Your task to perform on an android device: What is the news today? Image 0: 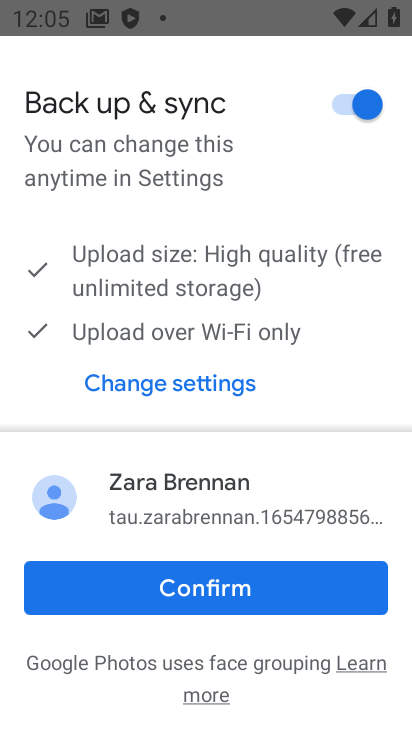
Step 0: press home button
Your task to perform on an android device: What is the news today? Image 1: 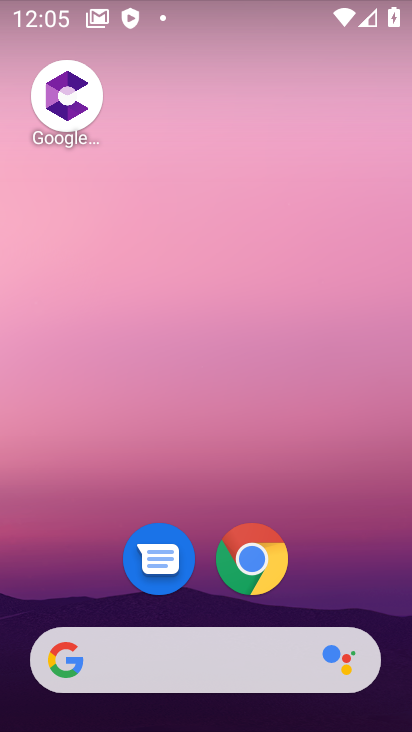
Step 1: task complete